Your task to perform on an android device: When is my next appointment? Image 0: 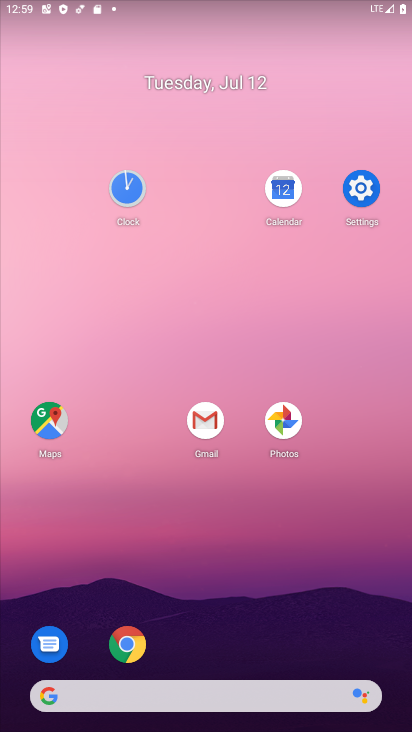
Step 0: click (283, 182)
Your task to perform on an android device: When is my next appointment? Image 1: 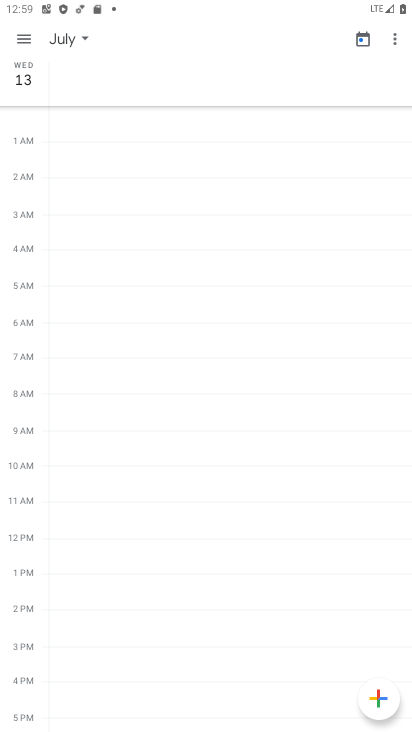
Step 1: task complete